Your task to perform on an android device: open device folders in google photos Image 0: 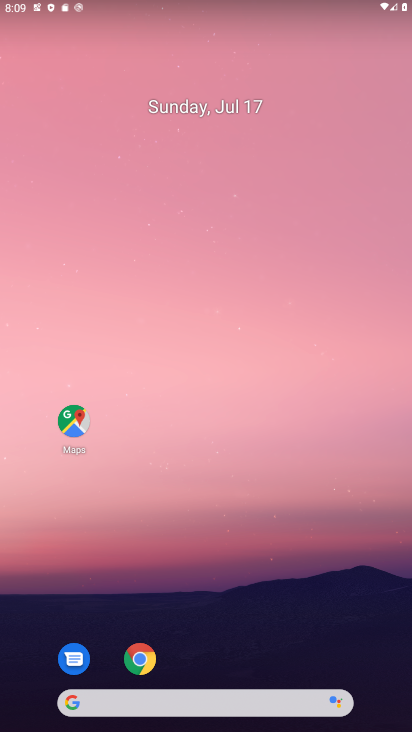
Step 0: drag from (208, 665) to (186, 239)
Your task to perform on an android device: open device folders in google photos Image 1: 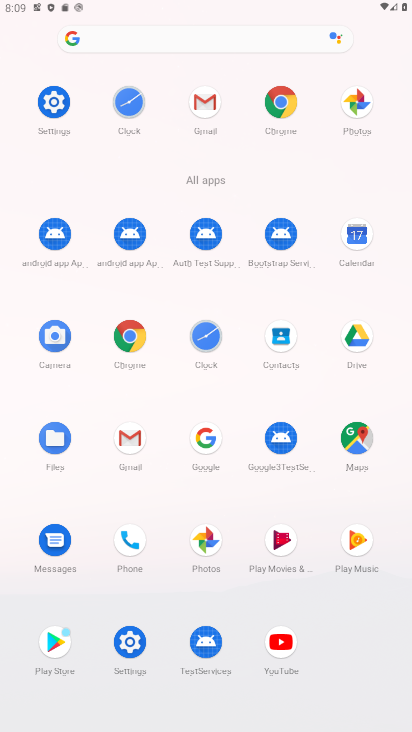
Step 1: click (194, 550)
Your task to perform on an android device: open device folders in google photos Image 2: 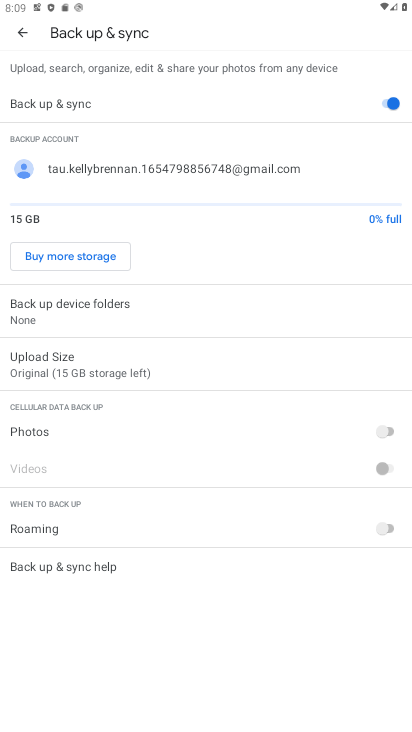
Step 2: click (15, 32)
Your task to perform on an android device: open device folders in google photos Image 3: 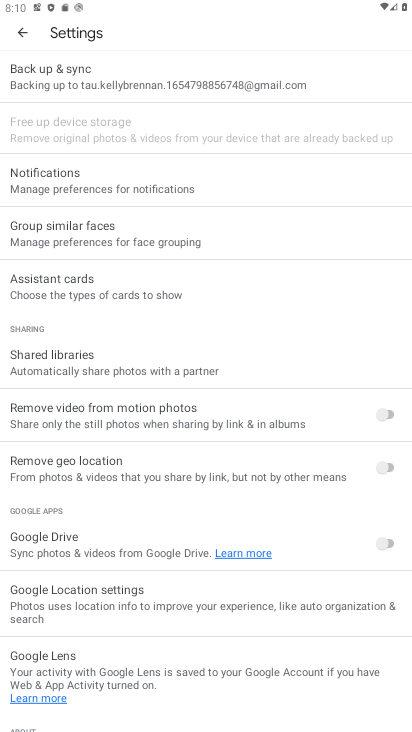
Step 3: click (15, 31)
Your task to perform on an android device: open device folders in google photos Image 4: 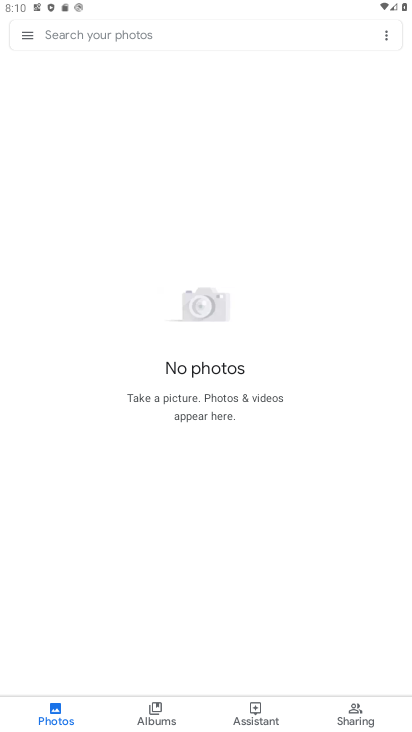
Step 4: click (30, 41)
Your task to perform on an android device: open device folders in google photos Image 5: 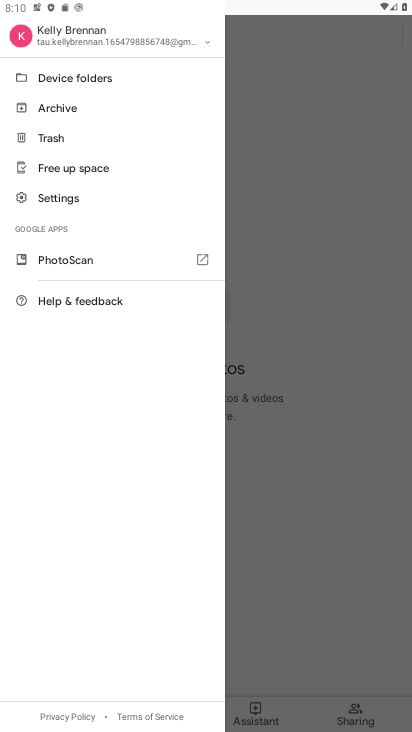
Step 5: click (78, 83)
Your task to perform on an android device: open device folders in google photos Image 6: 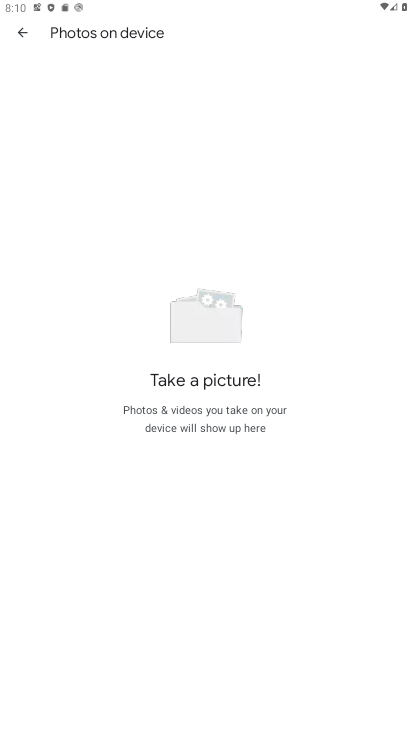
Step 6: task complete